Your task to perform on an android device: toggle wifi Image 0: 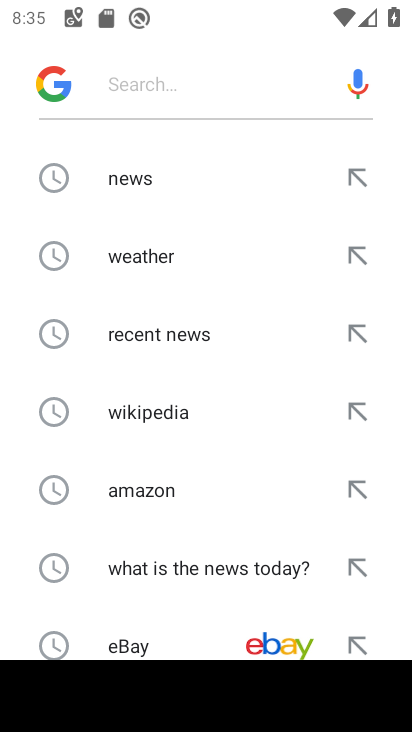
Step 0: press home button
Your task to perform on an android device: toggle wifi Image 1: 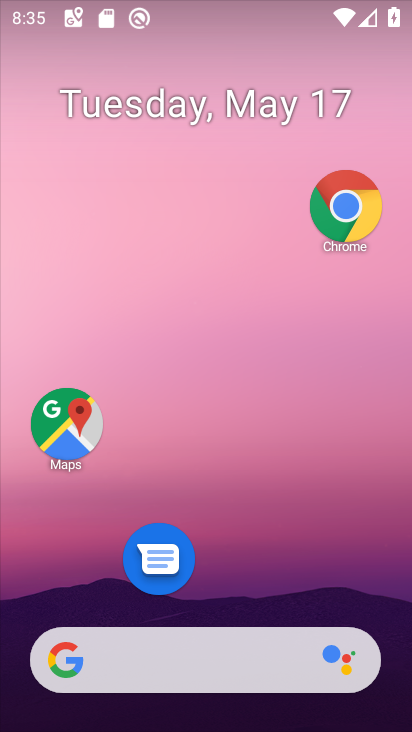
Step 1: drag from (218, 590) to (266, 110)
Your task to perform on an android device: toggle wifi Image 2: 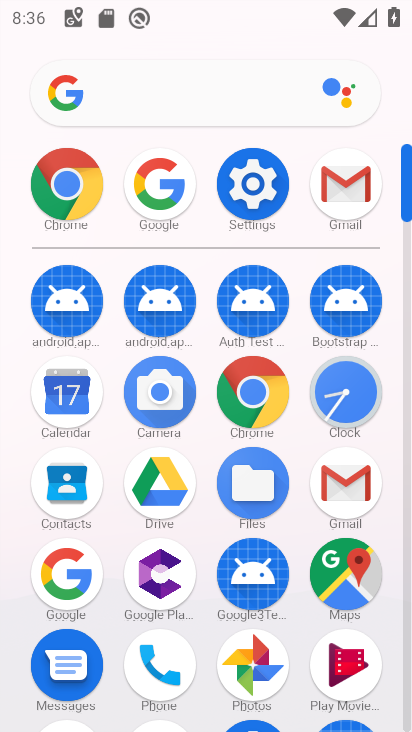
Step 2: click (268, 184)
Your task to perform on an android device: toggle wifi Image 3: 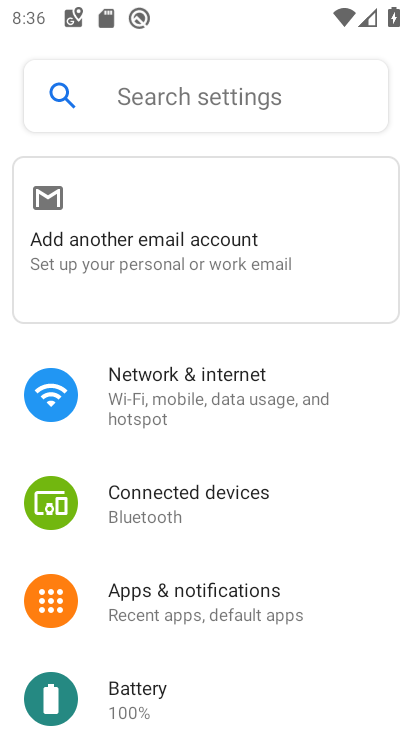
Step 3: click (230, 424)
Your task to perform on an android device: toggle wifi Image 4: 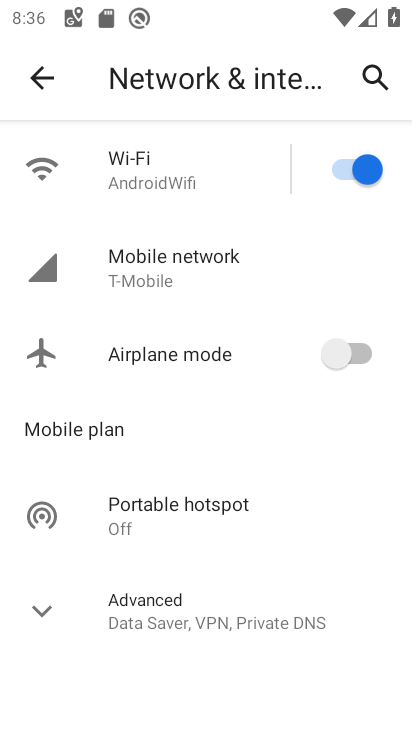
Step 4: click (347, 175)
Your task to perform on an android device: toggle wifi Image 5: 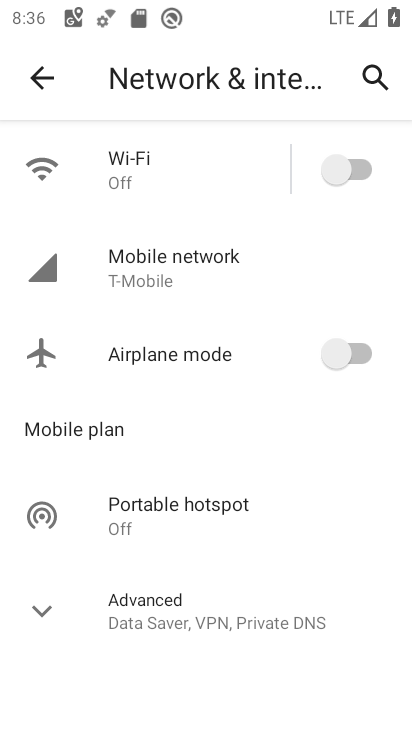
Step 5: task complete